Your task to perform on an android device: Open the web browser Image 0: 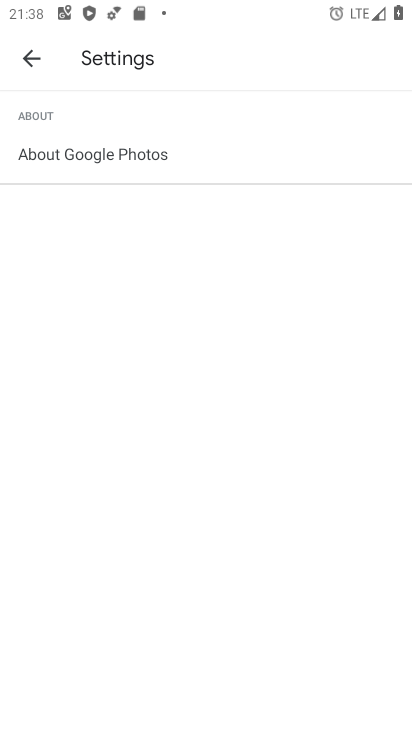
Step 0: press back button
Your task to perform on an android device: Open the web browser Image 1: 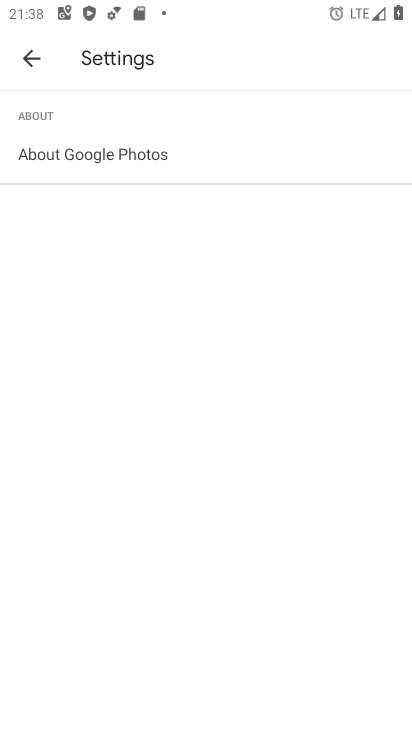
Step 1: press home button
Your task to perform on an android device: Open the web browser Image 2: 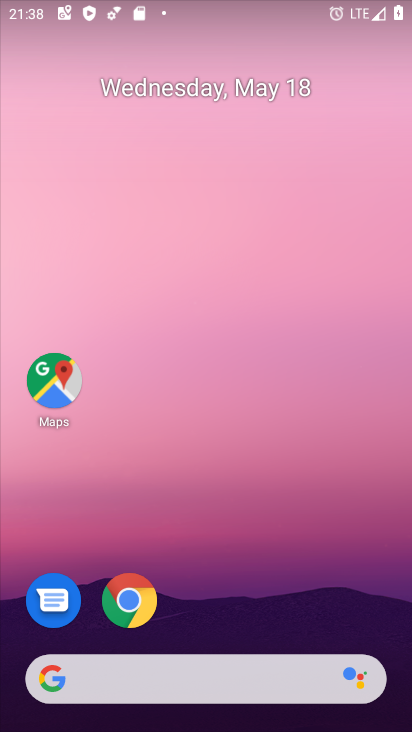
Step 2: click (119, 597)
Your task to perform on an android device: Open the web browser Image 3: 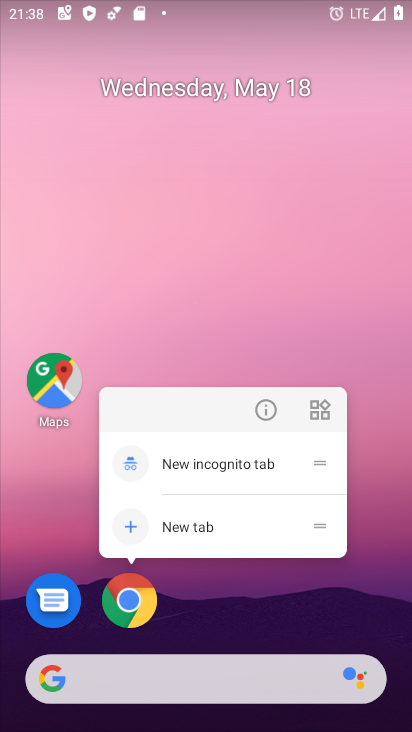
Step 3: click (128, 597)
Your task to perform on an android device: Open the web browser Image 4: 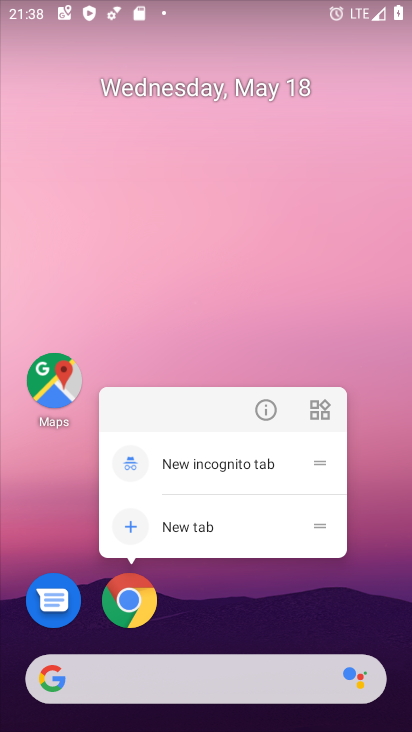
Step 4: click (130, 602)
Your task to perform on an android device: Open the web browser Image 5: 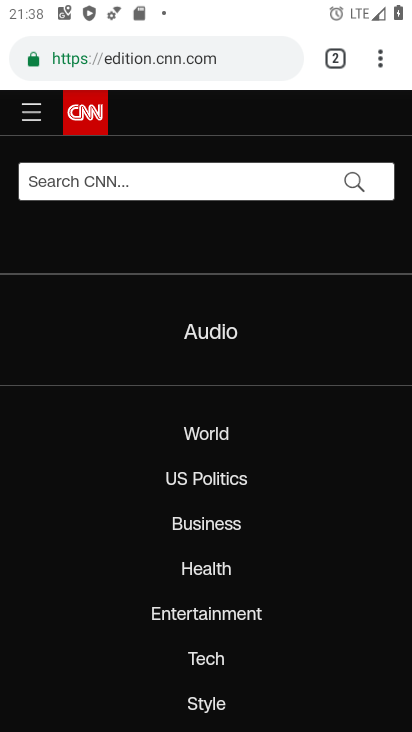
Step 5: task complete